Your task to perform on an android device: Go to wifi settings Image 0: 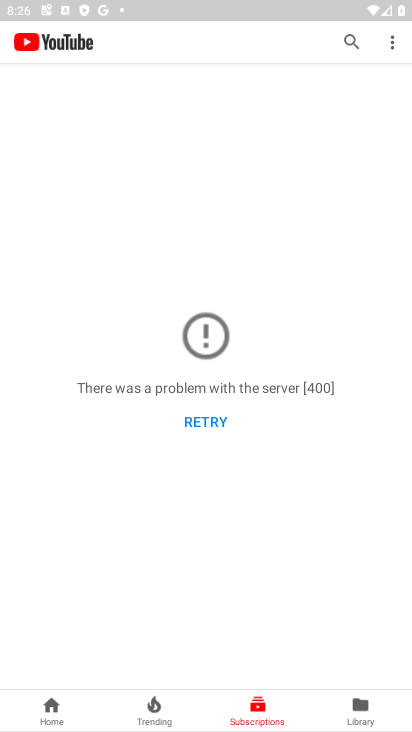
Step 0: press home button
Your task to perform on an android device: Go to wifi settings Image 1: 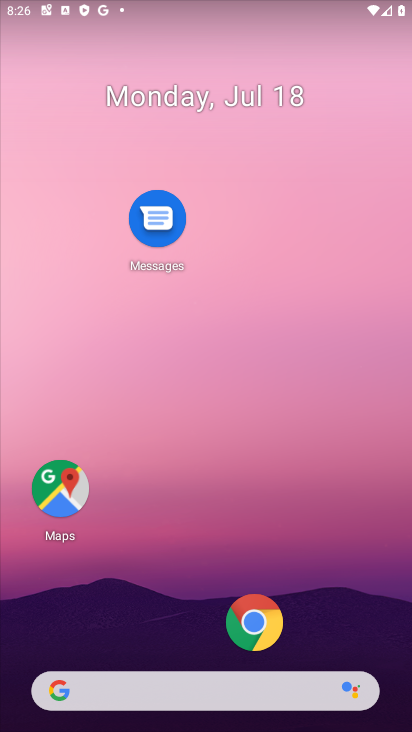
Step 1: drag from (122, 649) to (131, 114)
Your task to perform on an android device: Go to wifi settings Image 2: 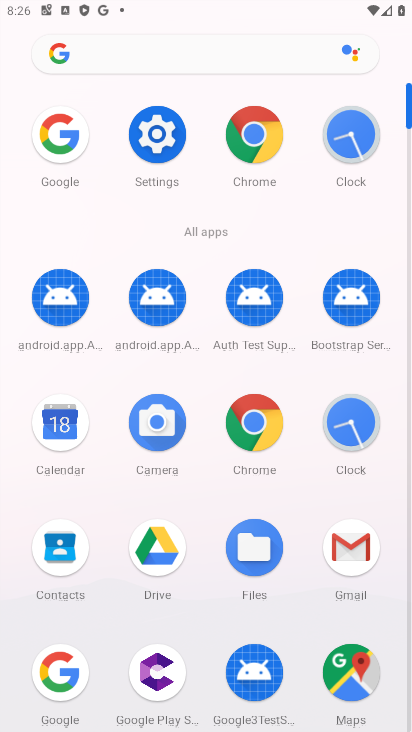
Step 2: click (151, 142)
Your task to perform on an android device: Go to wifi settings Image 3: 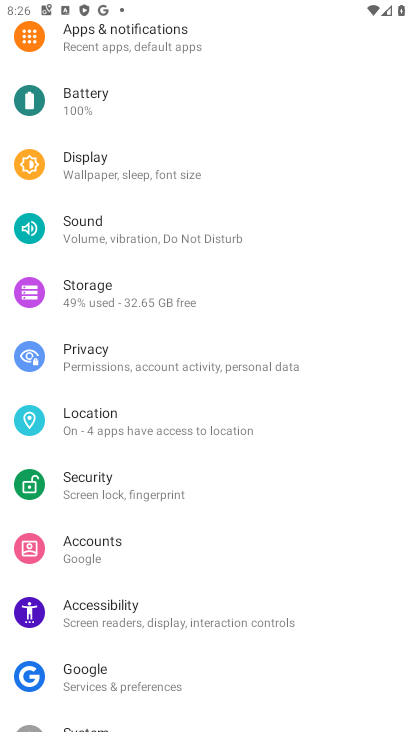
Step 3: drag from (149, 576) to (120, 722)
Your task to perform on an android device: Go to wifi settings Image 4: 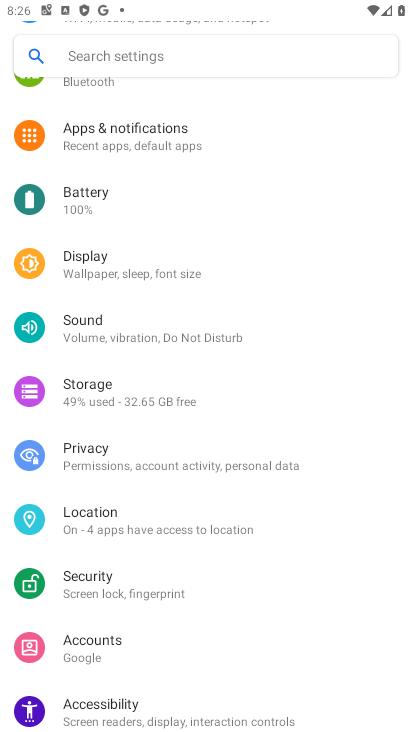
Step 4: drag from (178, 276) to (171, 652)
Your task to perform on an android device: Go to wifi settings Image 5: 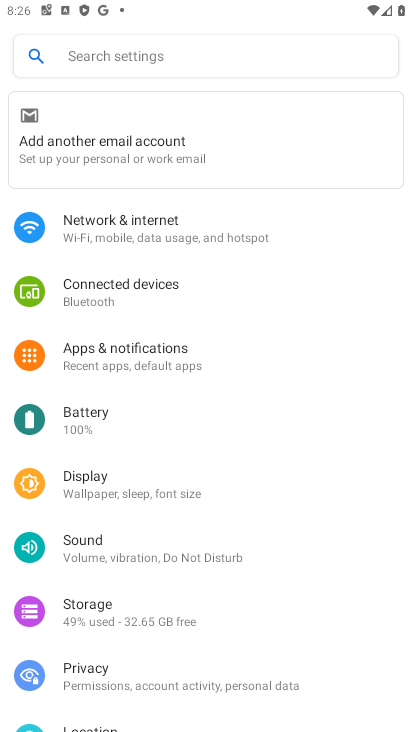
Step 5: drag from (161, 306) to (155, 662)
Your task to perform on an android device: Go to wifi settings Image 6: 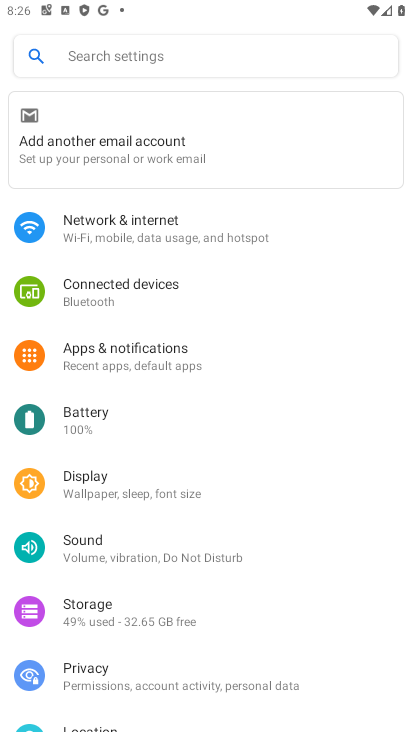
Step 6: drag from (153, 300) to (174, 569)
Your task to perform on an android device: Go to wifi settings Image 7: 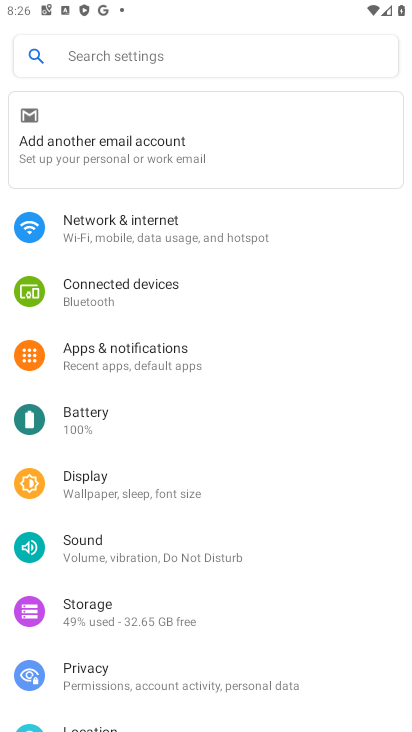
Step 7: click (188, 240)
Your task to perform on an android device: Go to wifi settings Image 8: 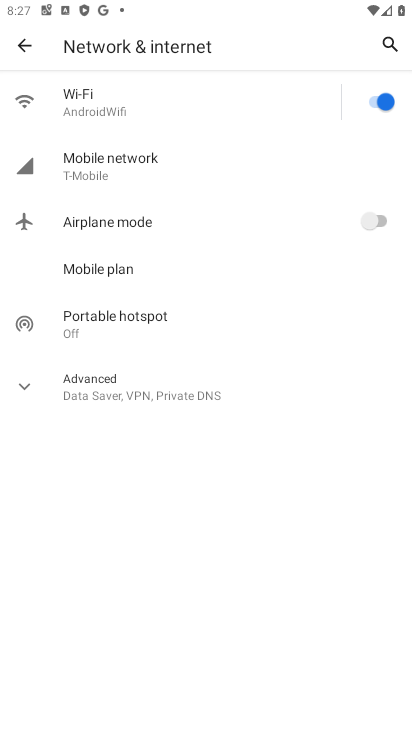
Step 8: click (136, 111)
Your task to perform on an android device: Go to wifi settings Image 9: 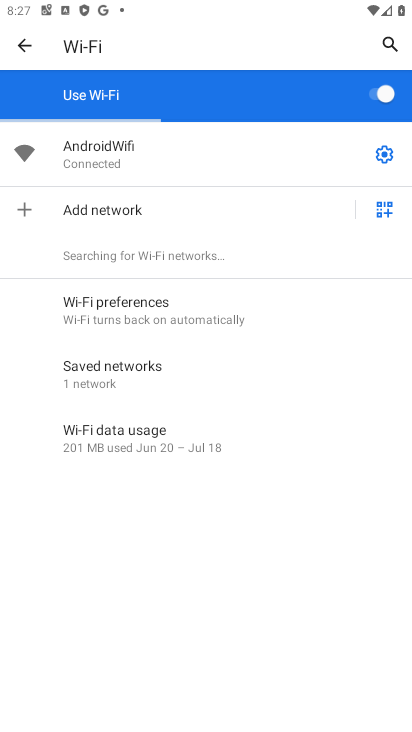
Step 9: task complete